Your task to perform on an android device: delete the emails in spam in the gmail app Image 0: 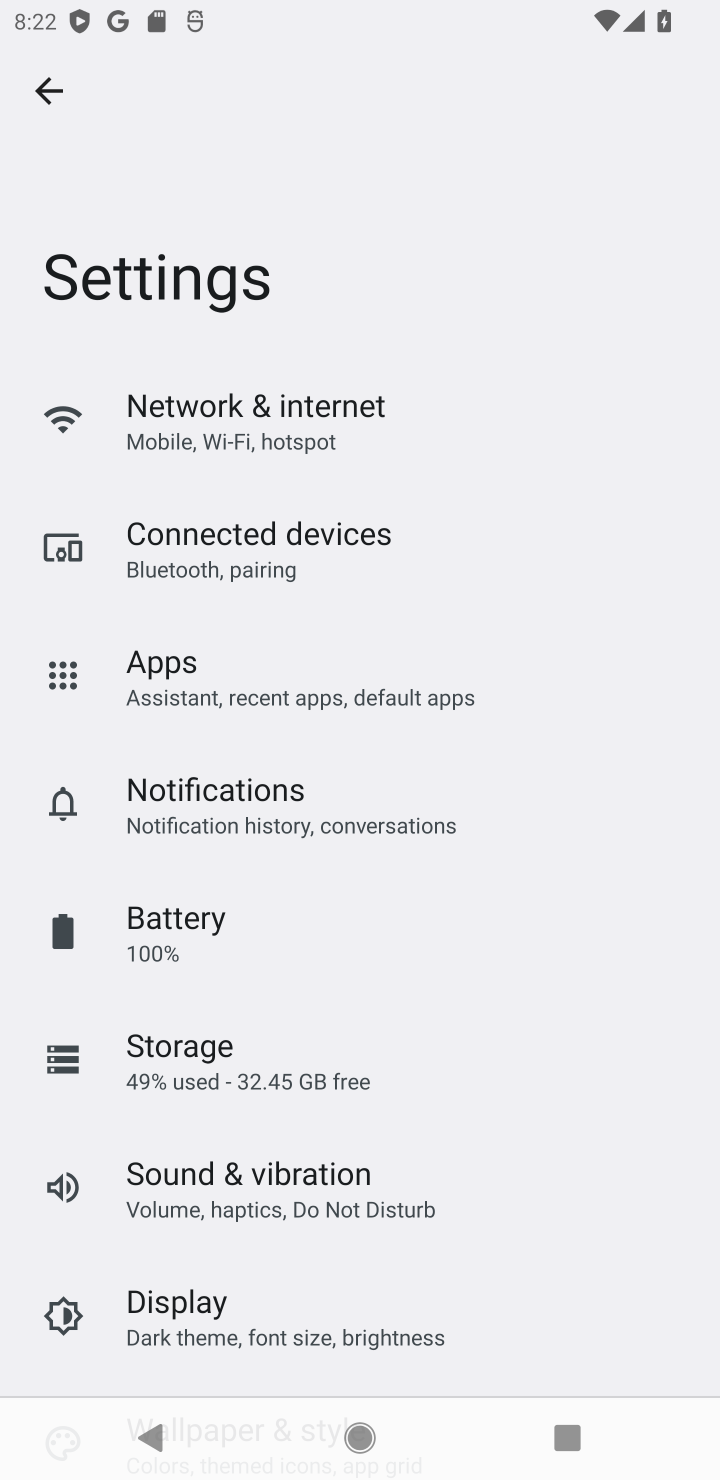
Step 0: press home button
Your task to perform on an android device: delete the emails in spam in the gmail app Image 1: 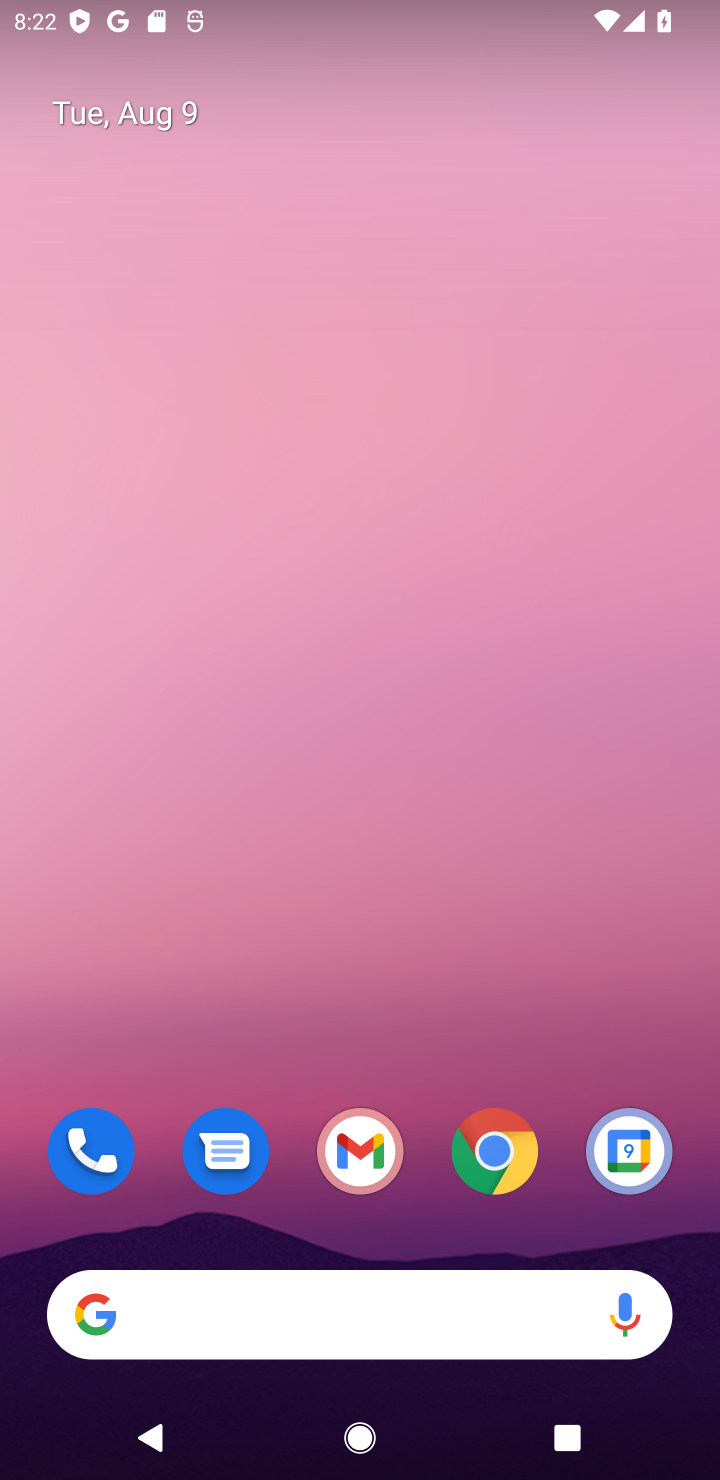
Step 1: click (351, 1179)
Your task to perform on an android device: delete the emails in spam in the gmail app Image 2: 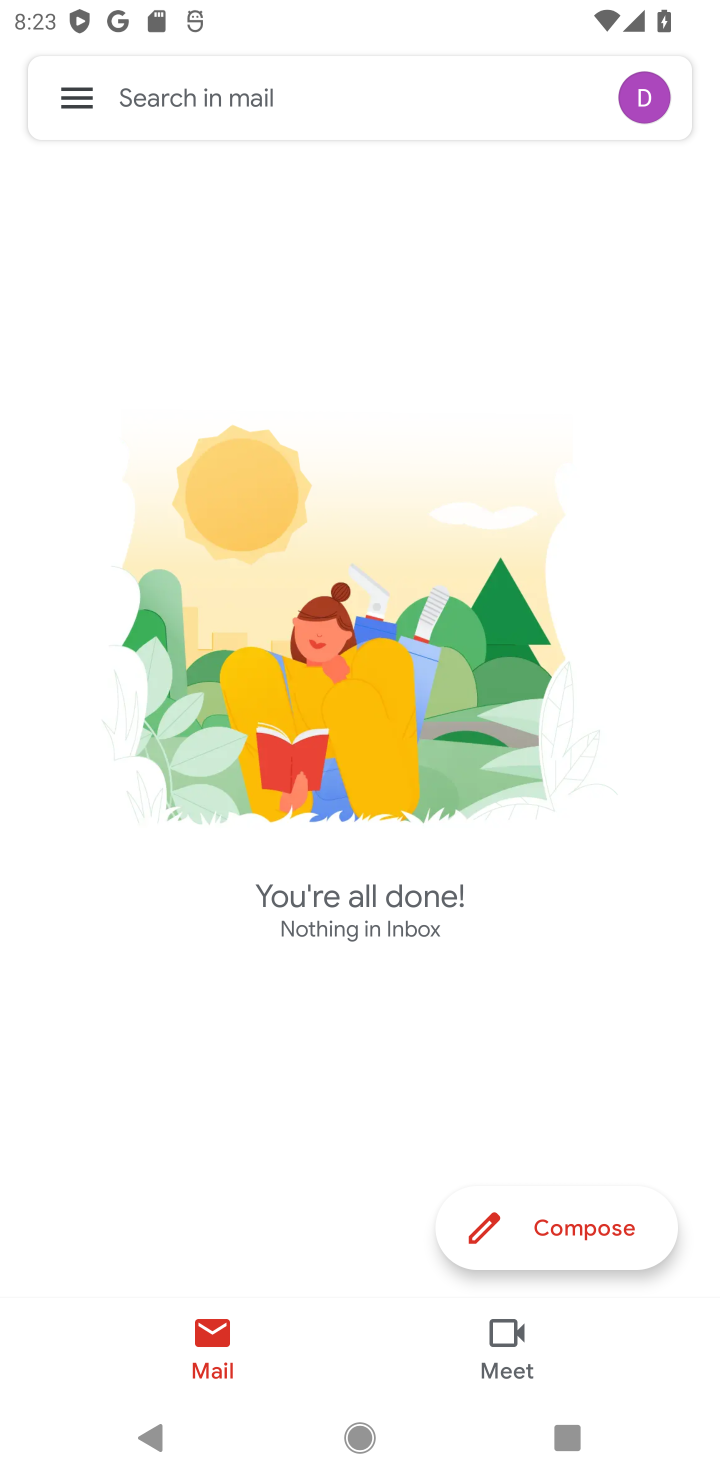
Step 2: click (77, 102)
Your task to perform on an android device: delete the emails in spam in the gmail app Image 3: 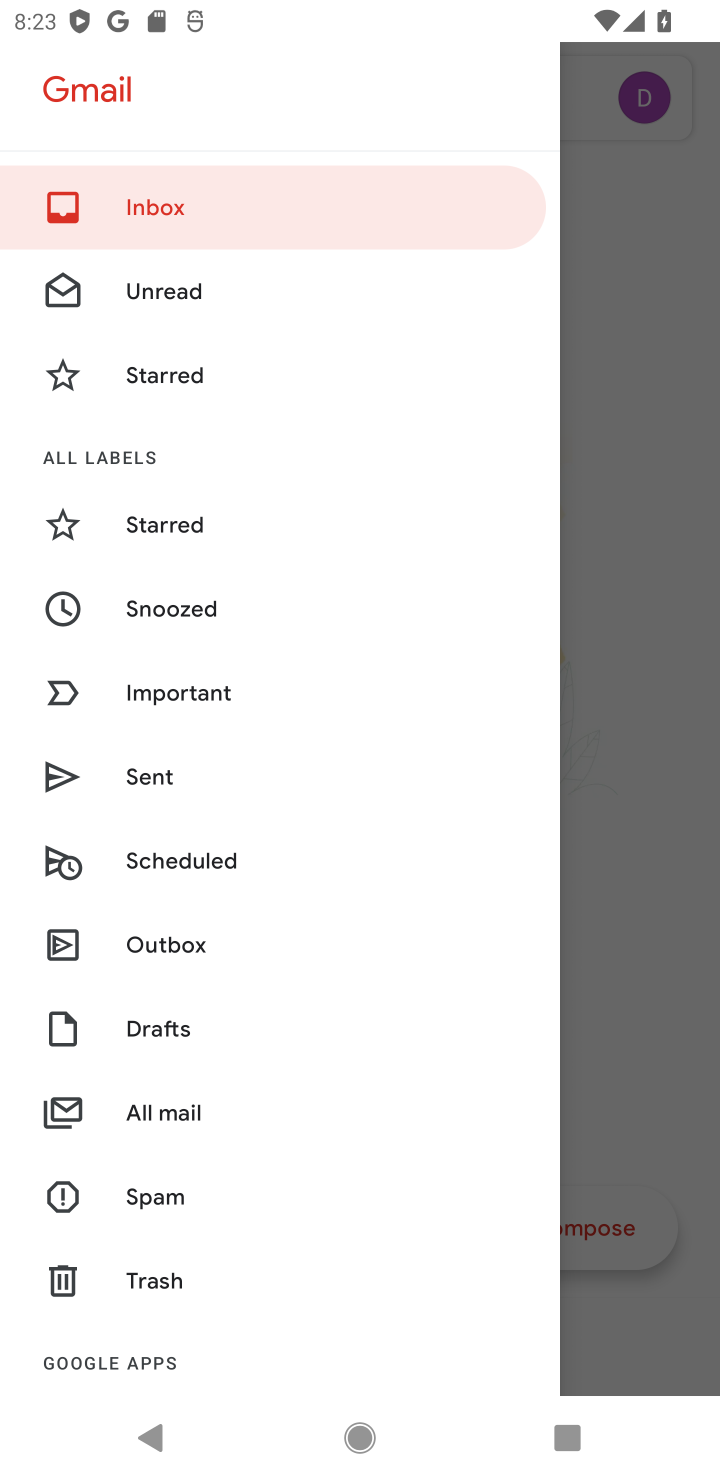
Step 3: click (142, 1186)
Your task to perform on an android device: delete the emails in spam in the gmail app Image 4: 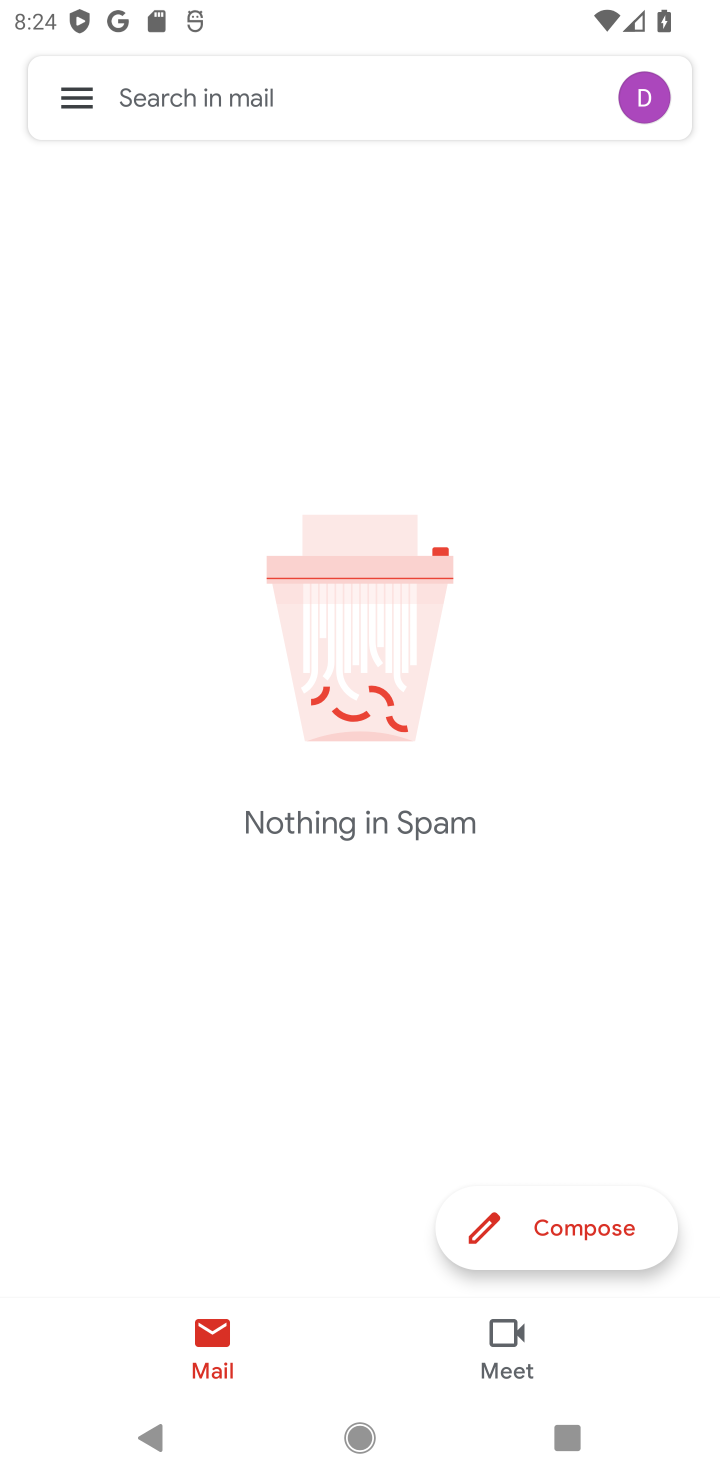
Step 4: task complete